Your task to perform on an android device: change keyboard looks Image 0: 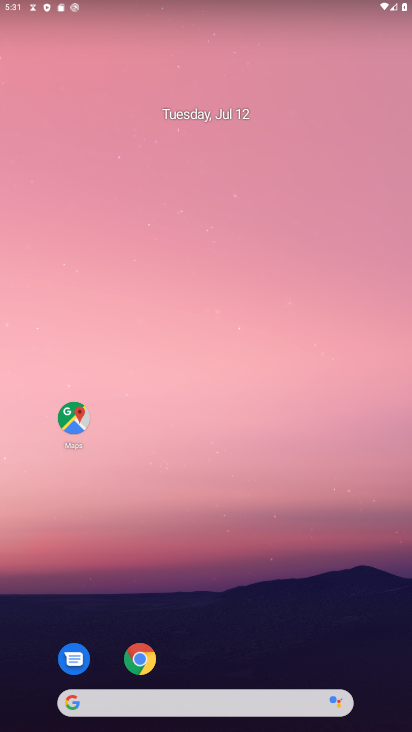
Step 0: drag from (205, 629) to (235, 167)
Your task to perform on an android device: change keyboard looks Image 1: 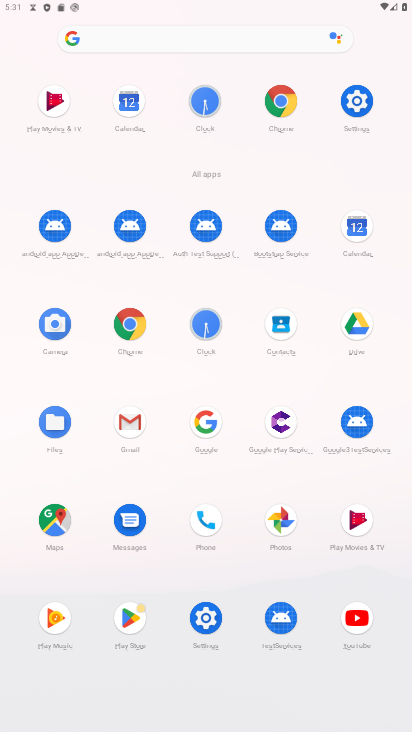
Step 1: click (212, 624)
Your task to perform on an android device: change keyboard looks Image 2: 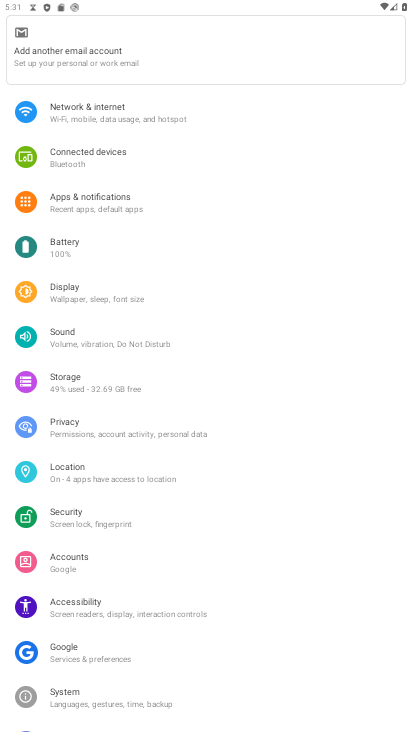
Step 2: drag from (169, 659) to (197, 324)
Your task to perform on an android device: change keyboard looks Image 3: 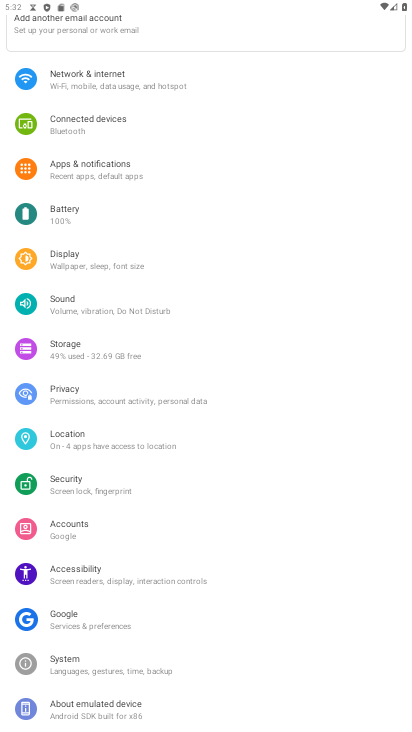
Step 3: click (103, 666)
Your task to perform on an android device: change keyboard looks Image 4: 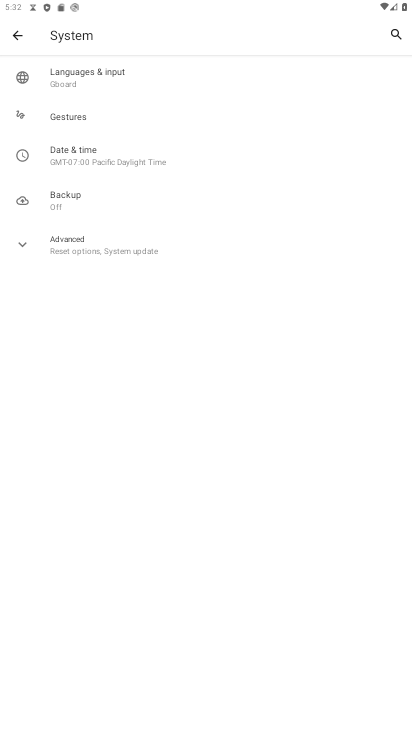
Step 4: click (113, 73)
Your task to perform on an android device: change keyboard looks Image 5: 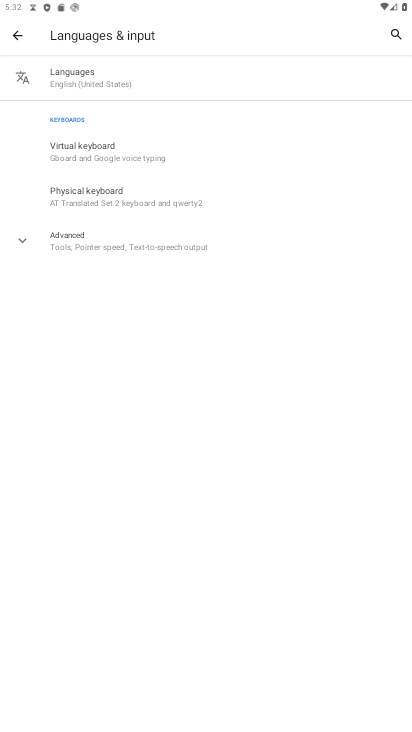
Step 5: click (121, 154)
Your task to perform on an android device: change keyboard looks Image 6: 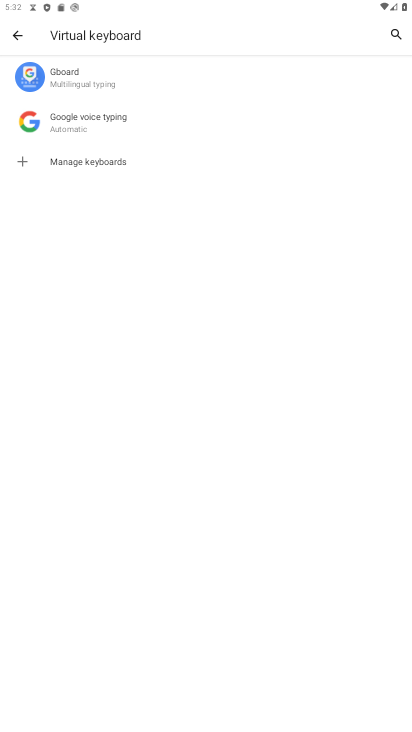
Step 6: click (77, 75)
Your task to perform on an android device: change keyboard looks Image 7: 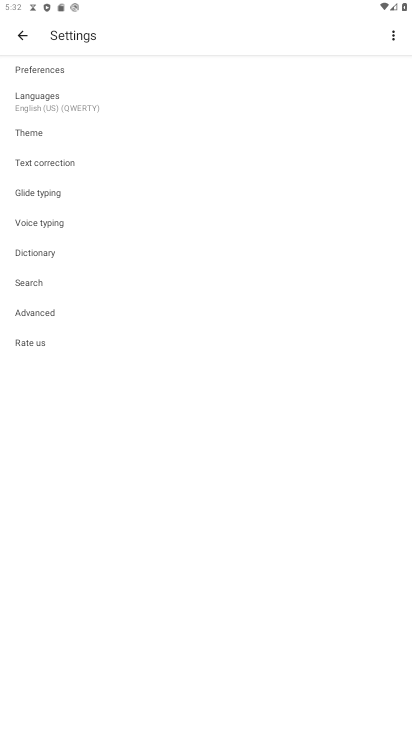
Step 7: click (14, 135)
Your task to perform on an android device: change keyboard looks Image 8: 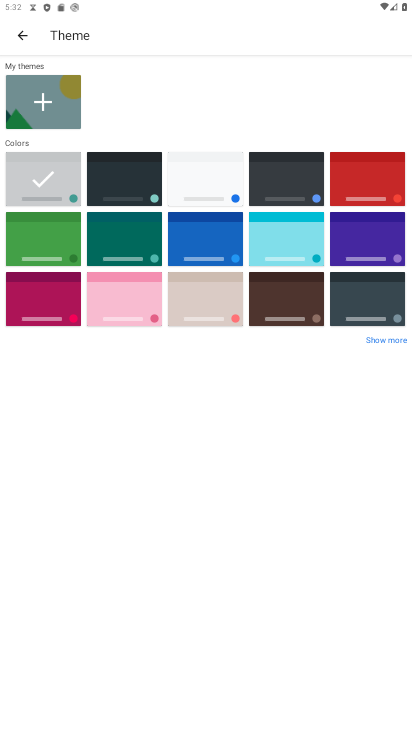
Step 8: click (127, 191)
Your task to perform on an android device: change keyboard looks Image 9: 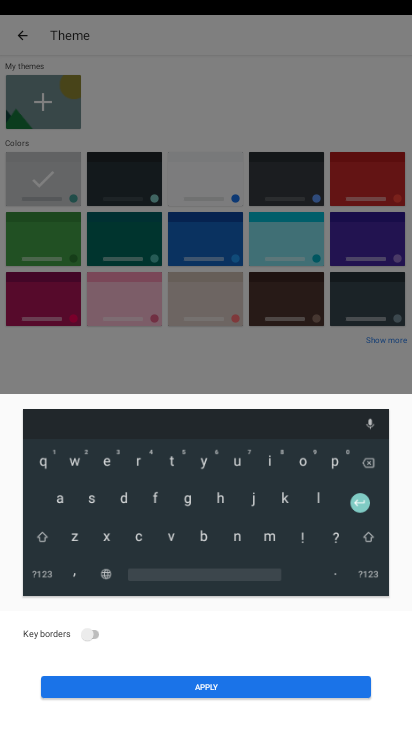
Step 9: click (249, 693)
Your task to perform on an android device: change keyboard looks Image 10: 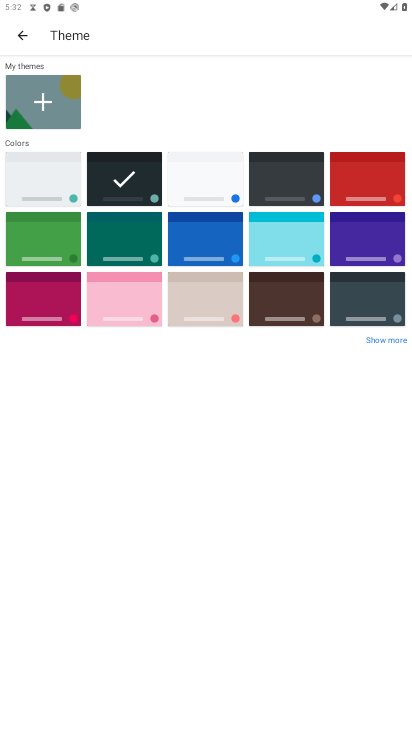
Step 10: task complete